Your task to perform on an android device: move an email to a new category in the gmail app Image 0: 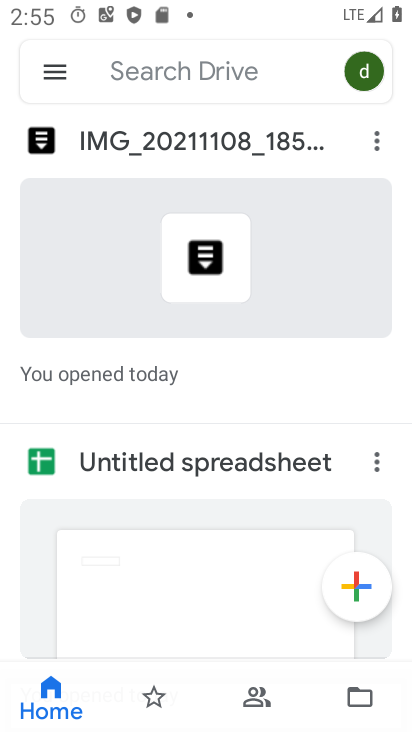
Step 0: press back button
Your task to perform on an android device: move an email to a new category in the gmail app Image 1: 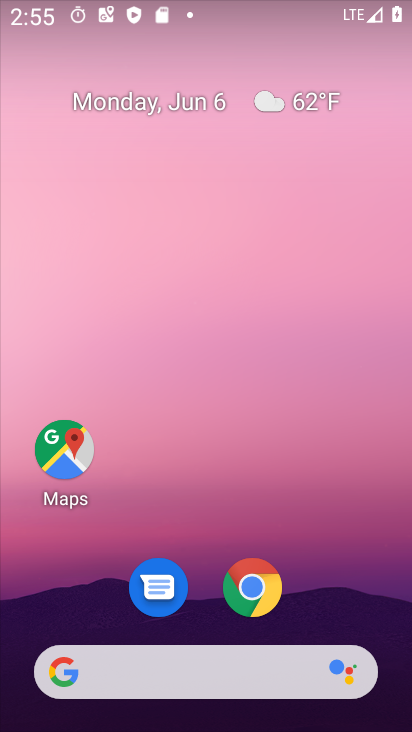
Step 1: drag from (287, 574) to (218, 3)
Your task to perform on an android device: move an email to a new category in the gmail app Image 2: 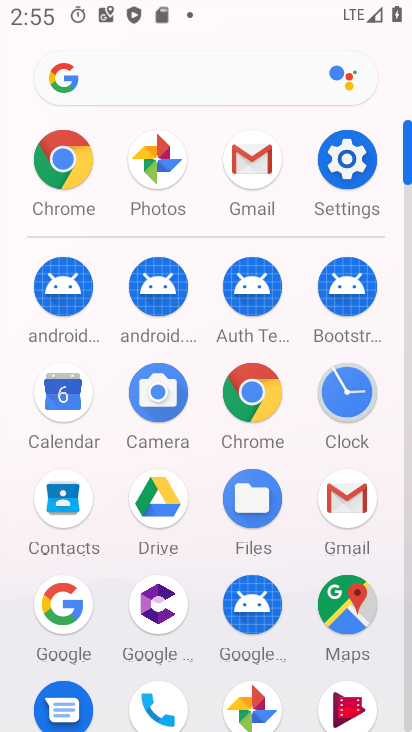
Step 2: click (345, 490)
Your task to perform on an android device: move an email to a new category in the gmail app Image 3: 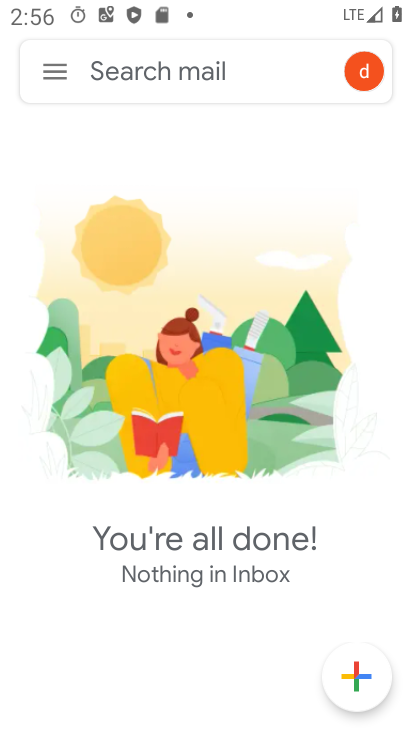
Step 3: click (63, 60)
Your task to perform on an android device: move an email to a new category in the gmail app Image 4: 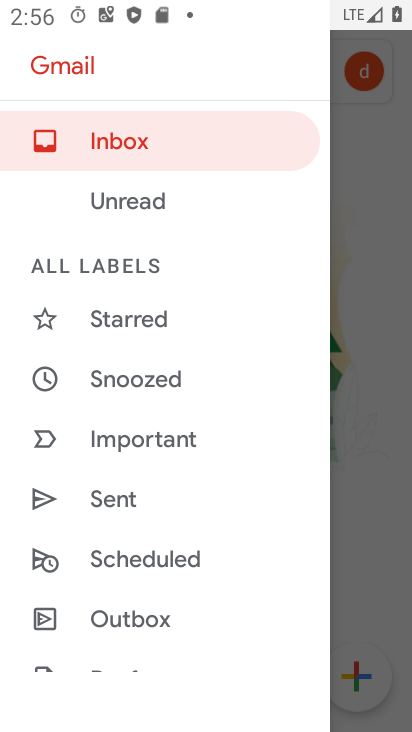
Step 4: click (177, 196)
Your task to perform on an android device: move an email to a new category in the gmail app Image 5: 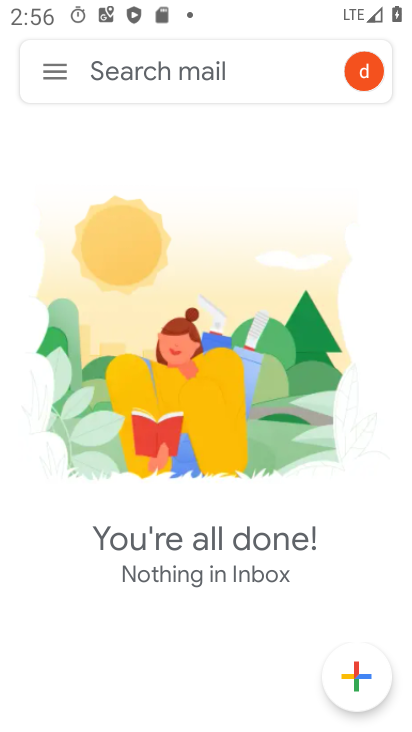
Step 5: click (55, 72)
Your task to perform on an android device: move an email to a new category in the gmail app Image 6: 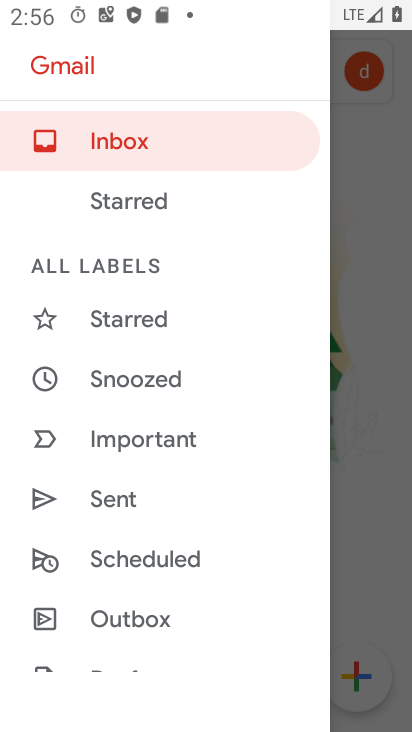
Step 6: click (145, 431)
Your task to perform on an android device: move an email to a new category in the gmail app Image 7: 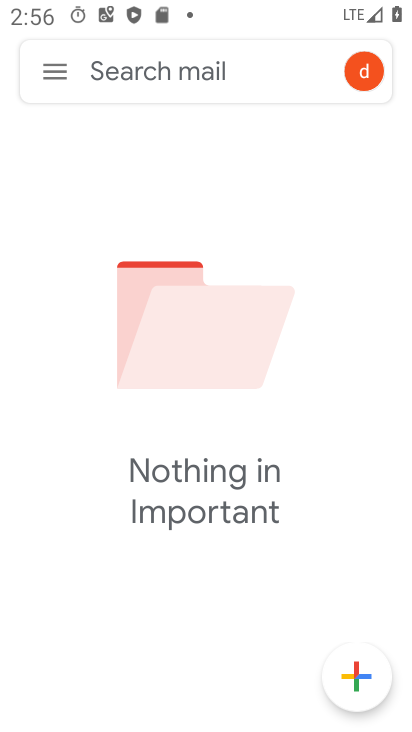
Step 7: click (57, 63)
Your task to perform on an android device: move an email to a new category in the gmail app Image 8: 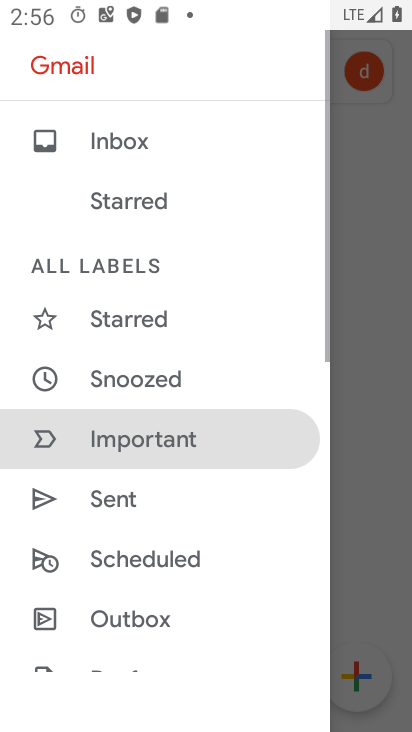
Step 8: click (160, 364)
Your task to perform on an android device: move an email to a new category in the gmail app Image 9: 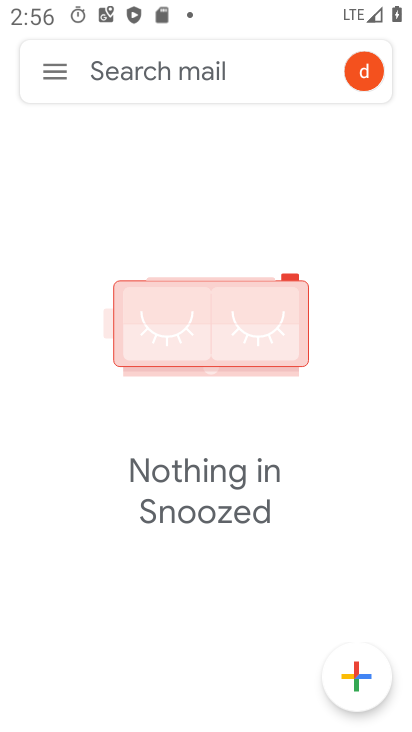
Step 9: click (58, 67)
Your task to perform on an android device: move an email to a new category in the gmail app Image 10: 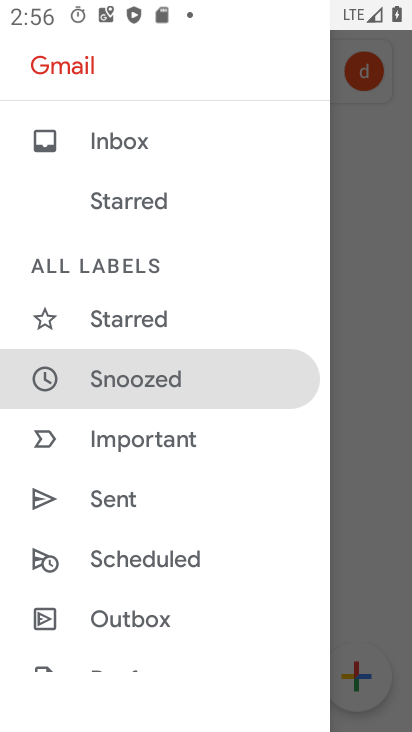
Step 10: drag from (147, 579) to (195, 251)
Your task to perform on an android device: move an email to a new category in the gmail app Image 11: 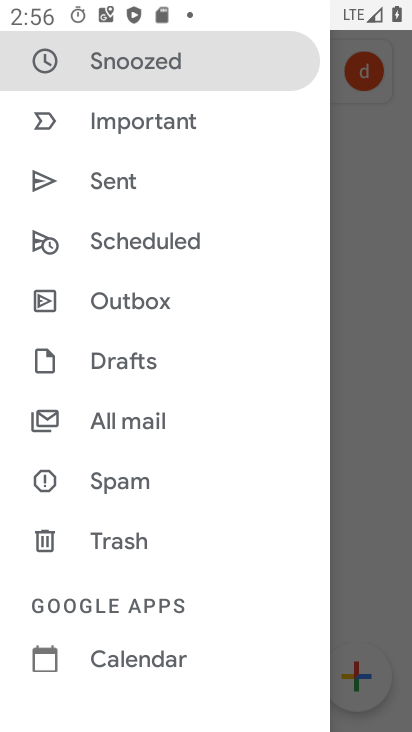
Step 11: click (125, 410)
Your task to perform on an android device: move an email to a new category in the gmail app Image 12: 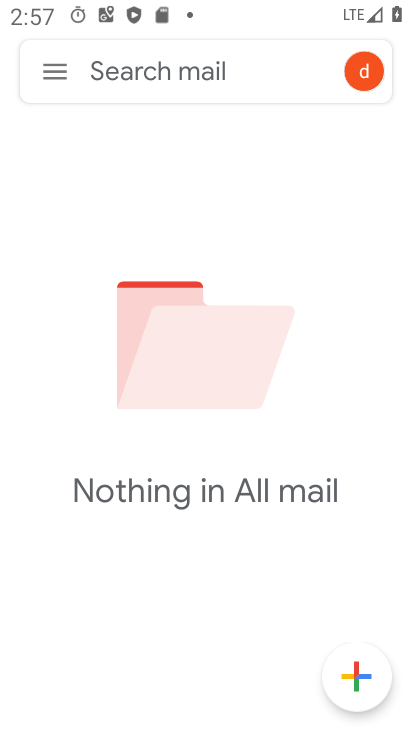
Step 12: task complete